Your task to perform on an android device: Go to Yahoo.com Image 0: 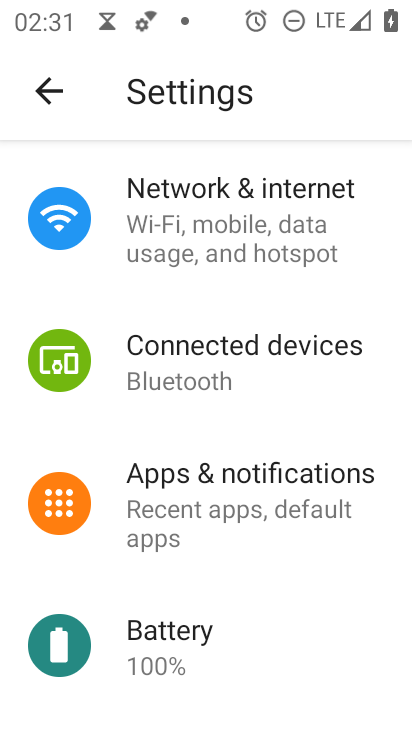
Step 0: press home button
Your task to perform on an android device: Go to Yahoo.com Image 1: 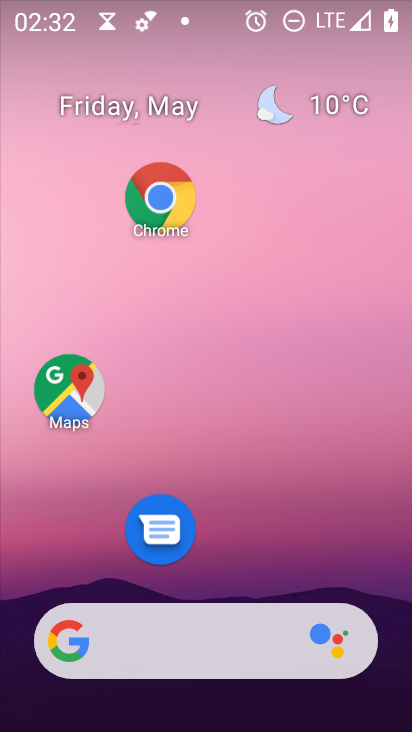
Step 1: click (149, 197)
Your task to perform on an android device: Go to Yahoo.com Image 2: 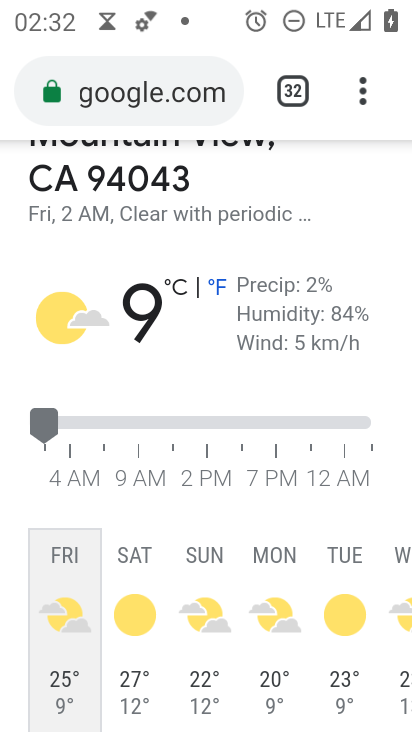
Step 2: click (346, 77)
Your task to perform on an android device: Go to Yahoo.com Image 3: 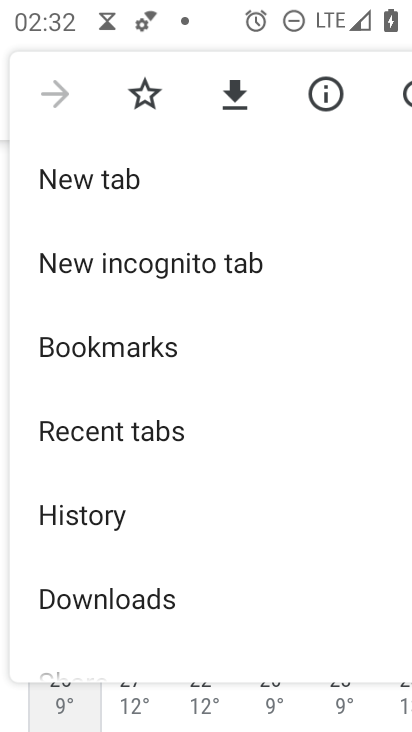
Step 3: click (65, 159)
Your task to perform on an android device: Go to Yahoo.com Image 4: 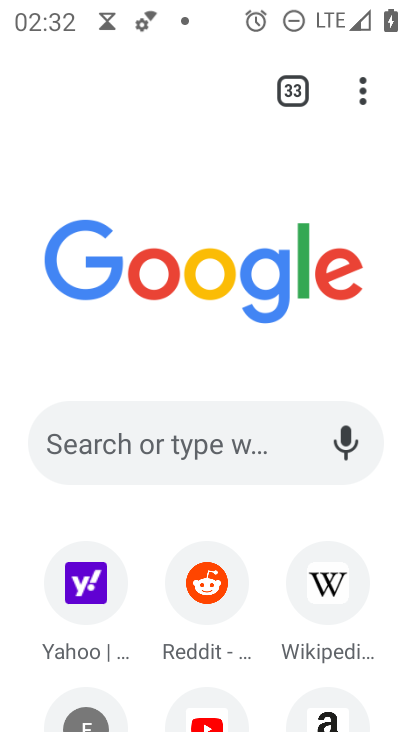
Step 4: click (92, 557)
Your task to perform on an android device: Go to Yahoo.com Image 5: 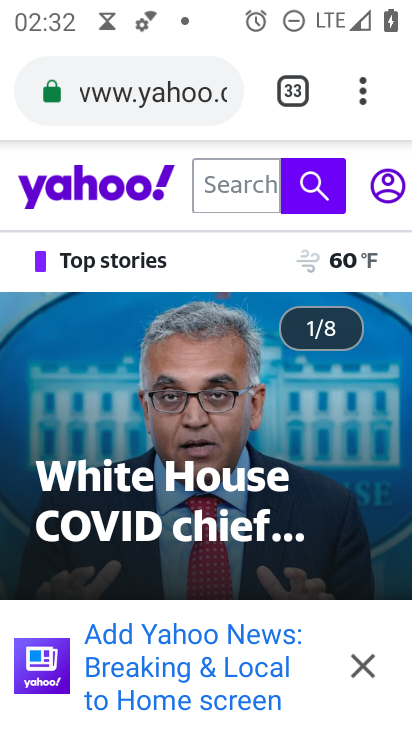
Step 5: task complete